Your task to perform on an android device: Open Chrome and go to the settings page Image 0: 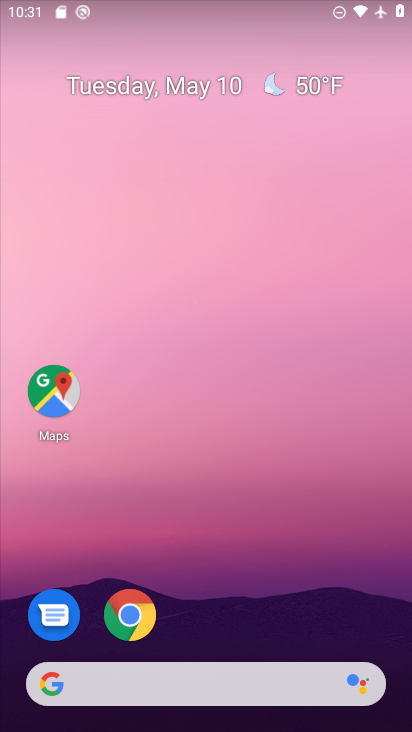
Step 0: click (133, 614)
Your task to perform on an android device: Open Chrome and go to the settings page Image 1: 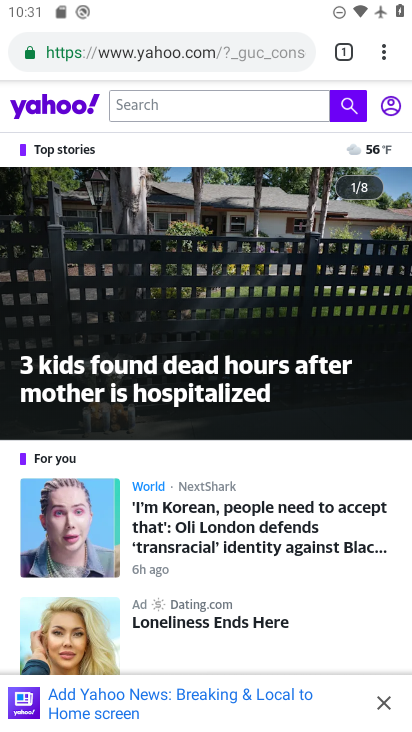
Step 1: click (384, 55)
Your task to perform on an android device: Open Chrome and go to the settings page Image 2: 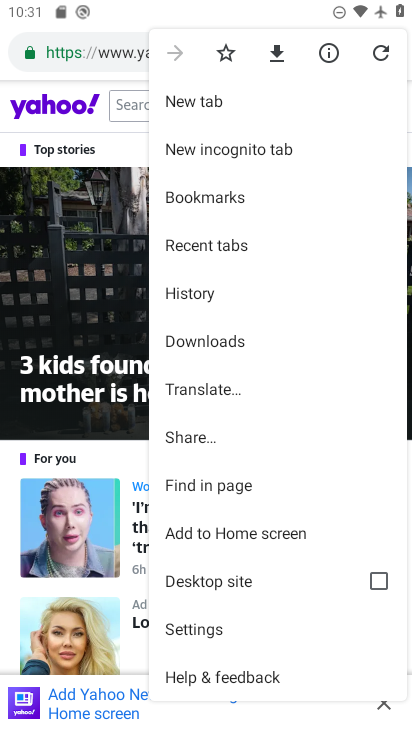
Step 2: click (202, 625)
Your task to perform on an android device: Open Chrome and go to the settings page Image 3: 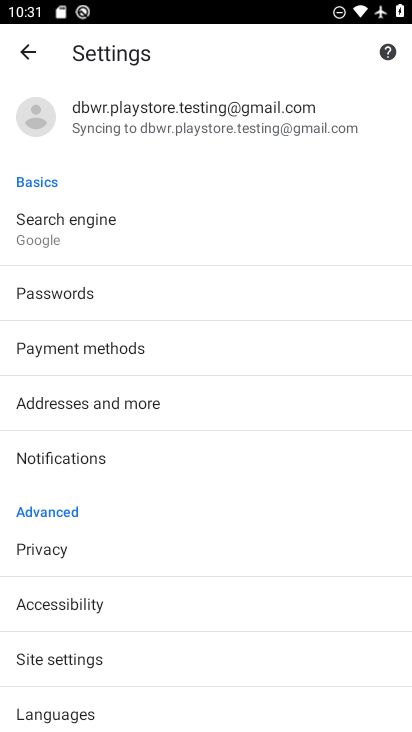
Step 3: task complete